Your task to perform on an android device: Go to ESPN.com Image 0: 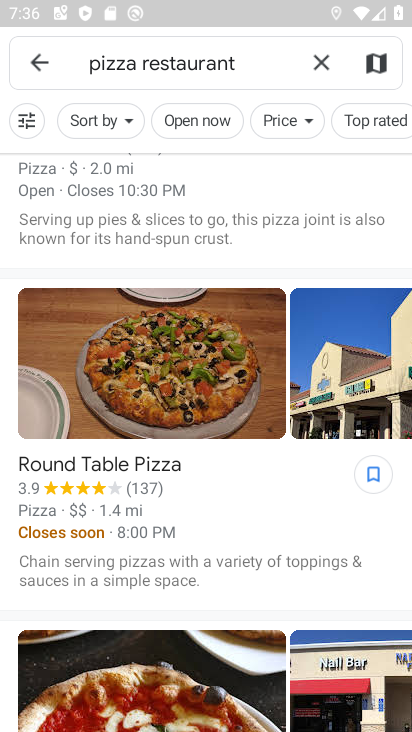
Step 0: press home button
Your task to perform on an android device: Go to ESPN.com Image 1: 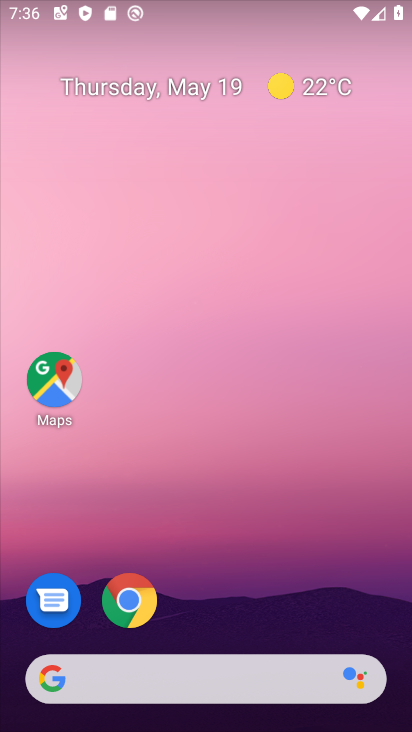
Step 1: drag from (376, 541) to (339, 202)
Your task to perform on an android device: Go to ESPN.com Image 2: 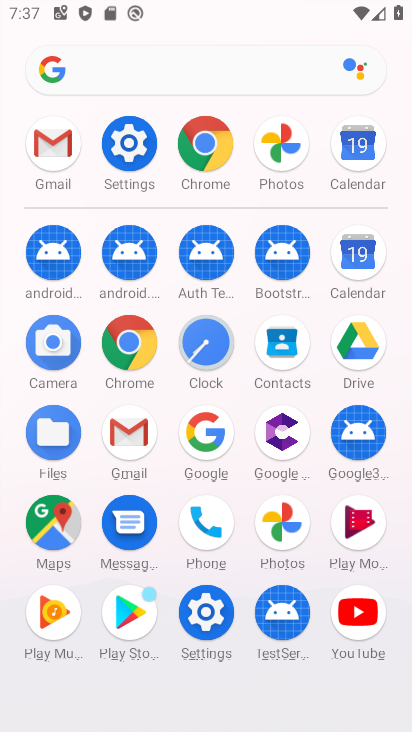
Step 2: click (203, 161)
Your task to perform on an android device: Go to ESPN.com Image 3: 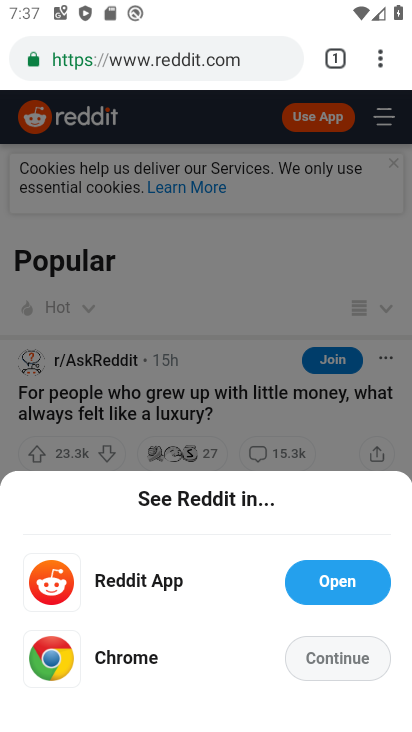
Step 3: click (174, 48)
Your task to perform on an android device: Go to ESPN.com Image 4: 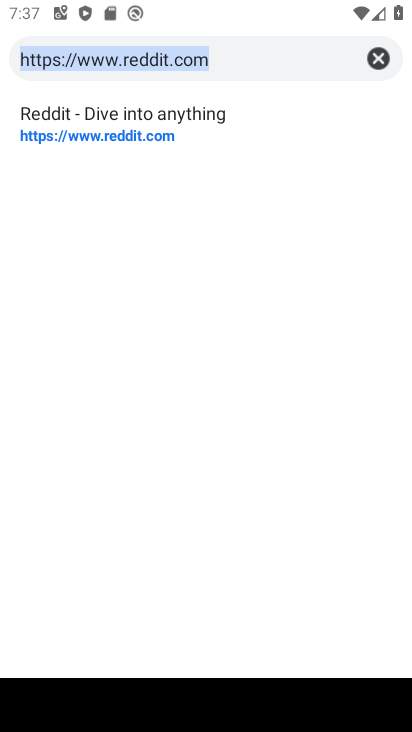
Step 4: click (381, 50)
Your task to perform on an android device: Go to ESPN.com Image 5: 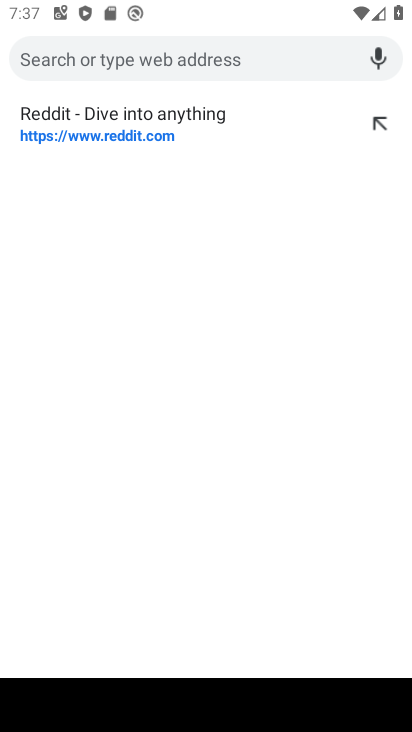
Step 5: type "espn.com"
Your task to perform on an android device: Go to ESPN.com Image 6: 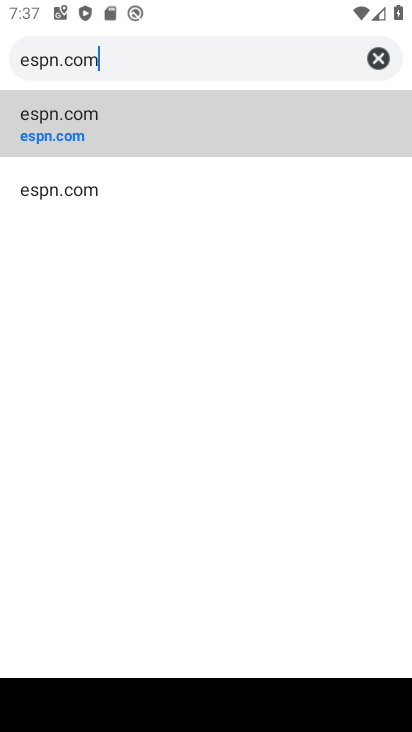
Step 6: click (16, 106)
Your task to perform on an android device: Go to ESPN.com Image 7: 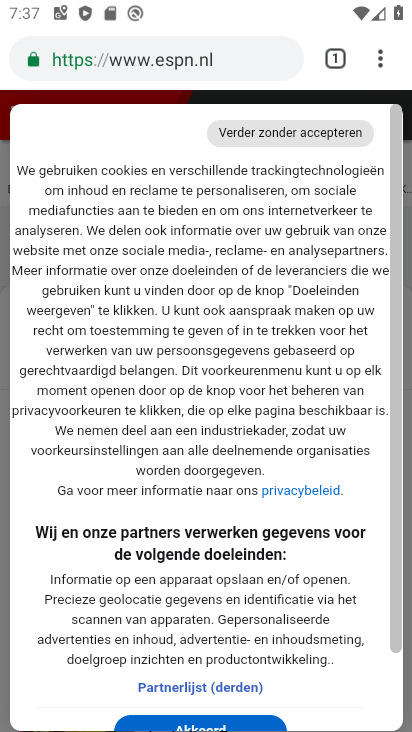
Step 7: drag from (301, 637) to (266, 315)
Your task to perform on an android device: Go to ESPN.com Image 8: 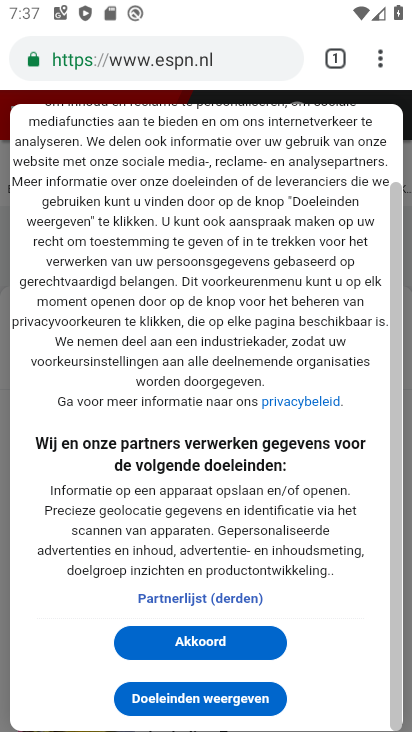
Step 8: click (257, 640)
Your task to perform on an android device: Go to ESPN.com Image 9: 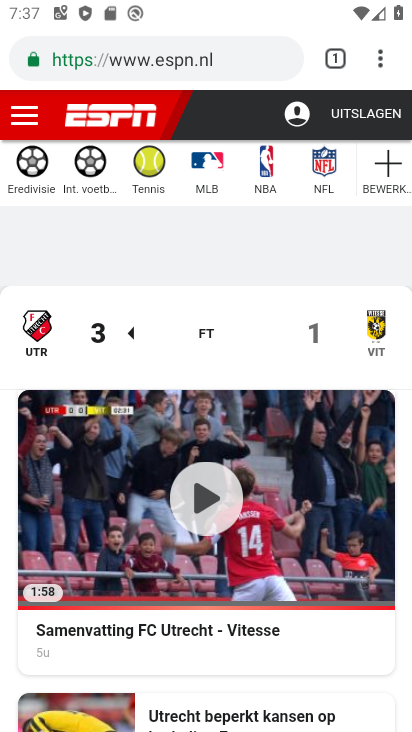
Step 9: task complete